Your task to perform on an android device: add a contact in the contacts app Image 0: 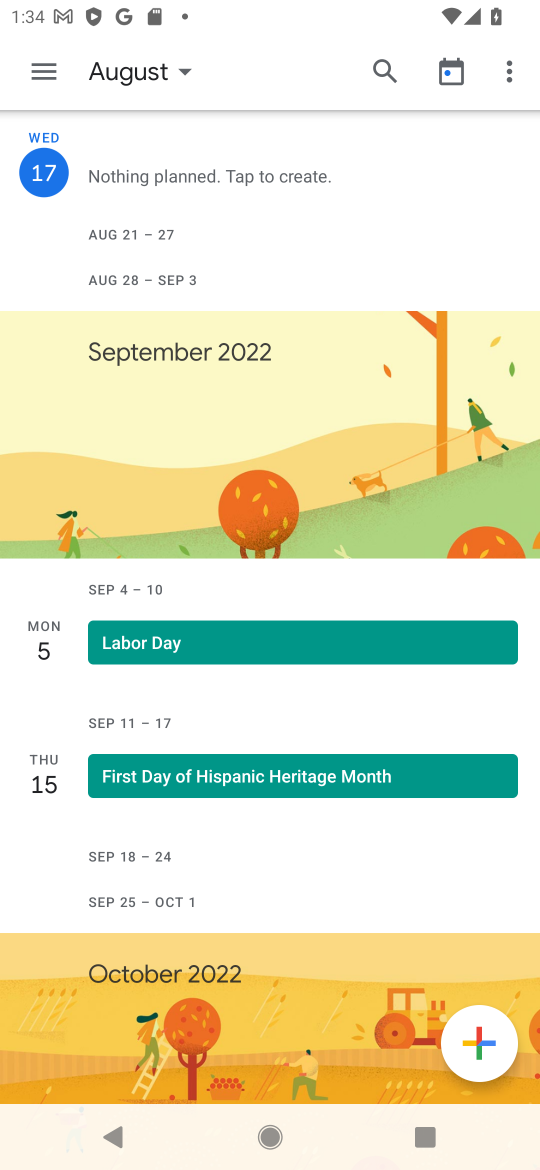
Step 0: press home button
Your task to perform on an android device: add a contact in the contacts app Image 1: 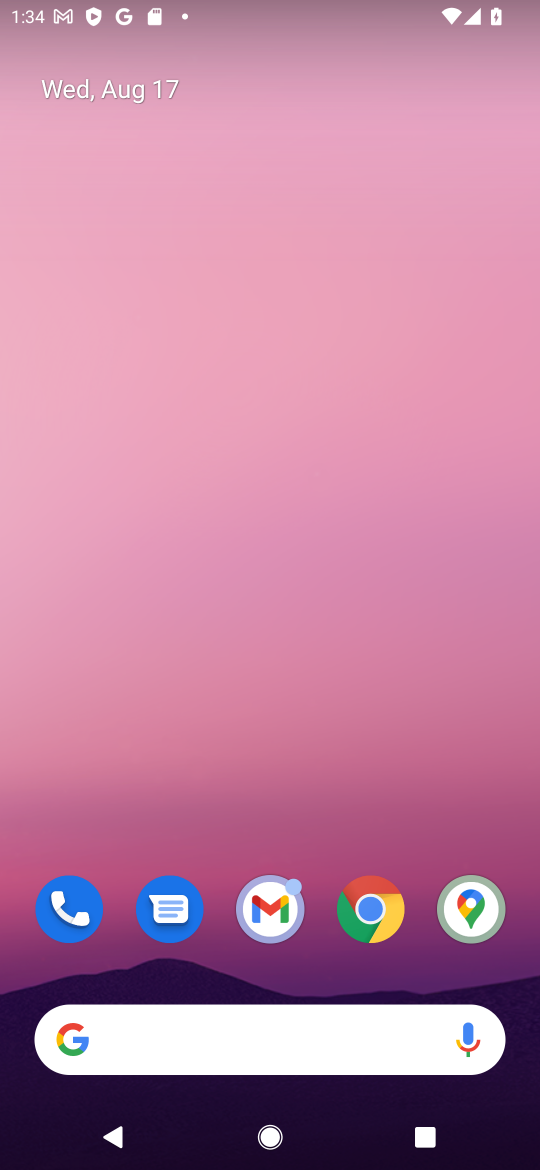
Step 1: task complete